Your task to perform on an android device: delete browsing data in the chrome app Image 0: 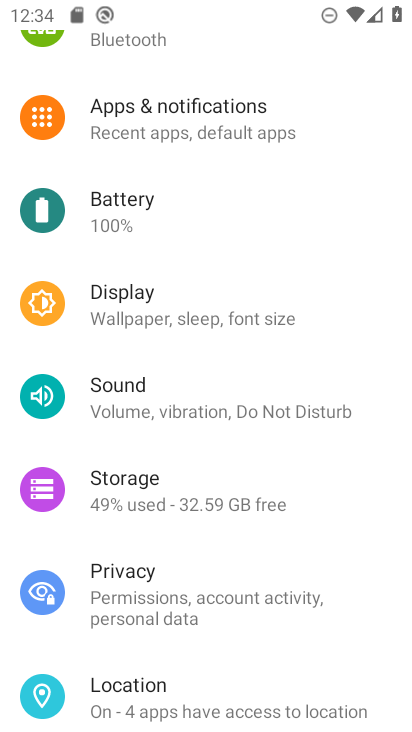
Step 0: press home button
Your task to perform on an android device: delete browsing data in the chrome app Image 1: 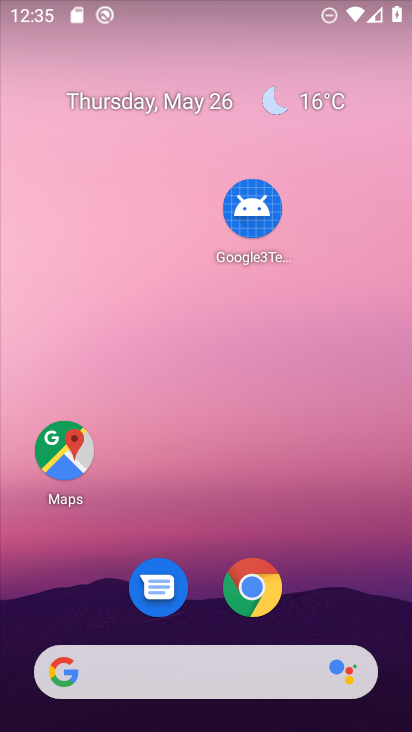
Step 1: click (252, 598)
Your task to perform on an android device: delete browsing data in the chrome app Image 2: 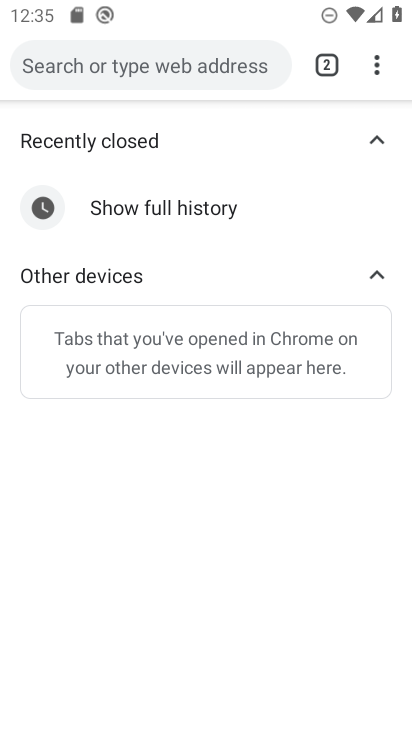
Step 2: drag from (371, 76) to (138, 365)
Your task to perform on an android device: delete browsing data in the chrome app Image 3: 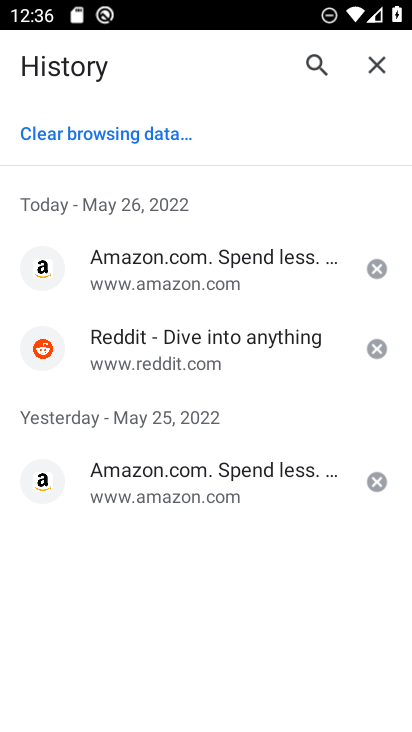
Step 3: click (81, 129)
Your task to perform on an android device: delete browsing data in the chrome app Image 4: 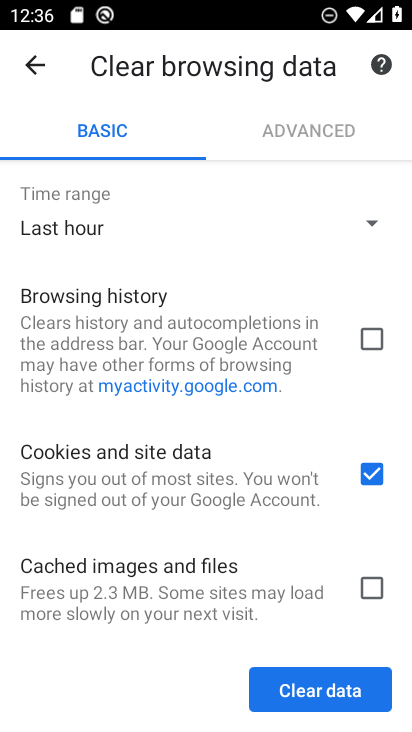
Step 4: click (372, 340)
Your task to perform on an android device: delete browsing data in the chrome app Image 5: 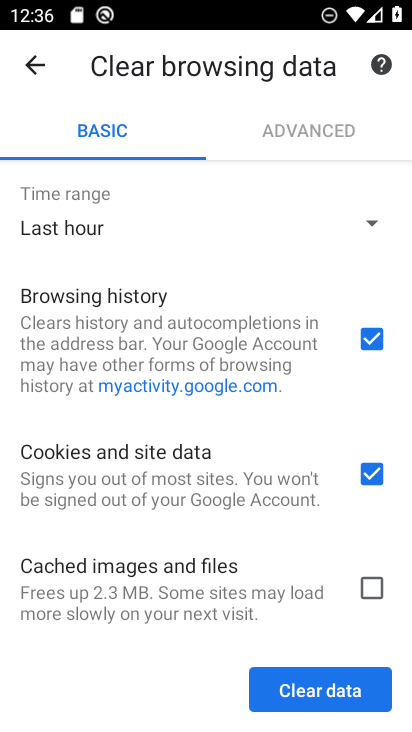
Step 5: click (317, 689)
Your task to perform on an android device: delete browsing data in the chrome app Image 6: 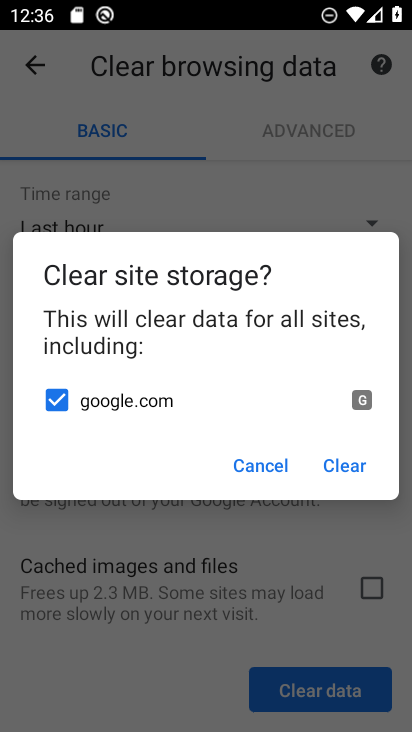
Step 6: click (360, 460)
Your task to perform on an android device: delete browsing data in the chrome app Image 7: 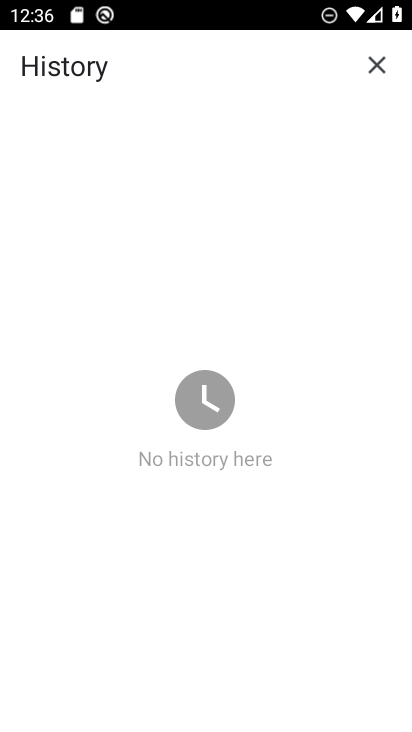
Step 7: task complete